Your task to perform on an android device: turn on showing notifications on the lock screen Image 0: 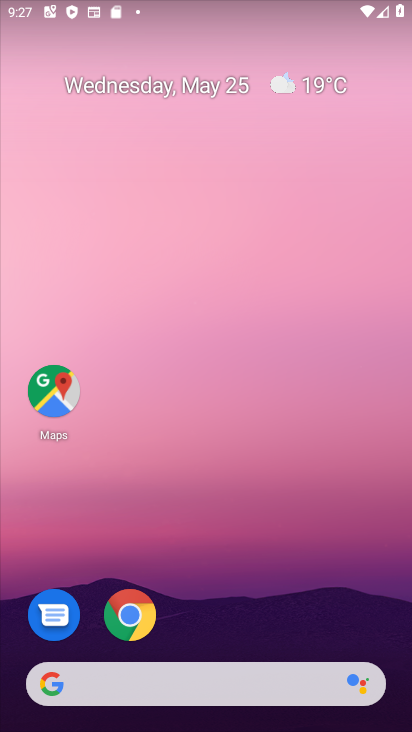
Step 0: drag from (265, 692) to (312, 83)
Your task to perform on an android device: turn on showing notifications on the lock screen Image 1: 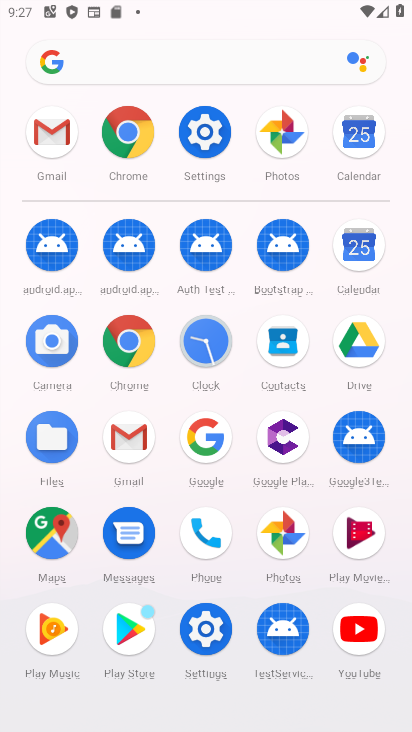
Step 1: click (199, 148)
Your task to perform on an android device: turn on showing notifications on the lock screen Image 2: 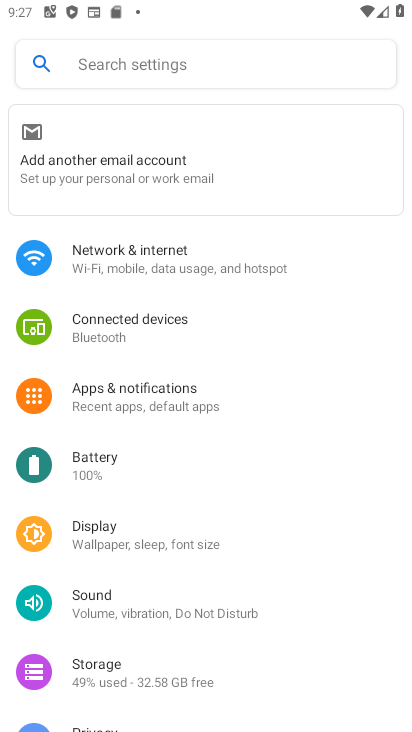
Step 2: click (144, 60)
Your task to perform on an android device: turn on showing notifications on the lock screen Image 3: 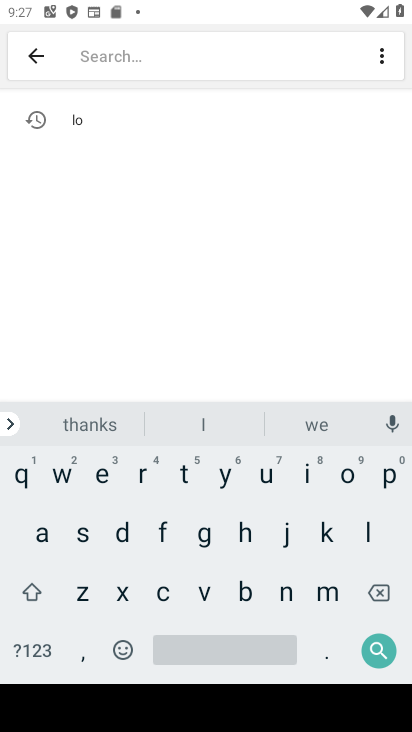
Step 3: click (280, 593)
Your task to perform on an android device: turn on showing notifications on the lock screen Image 4: 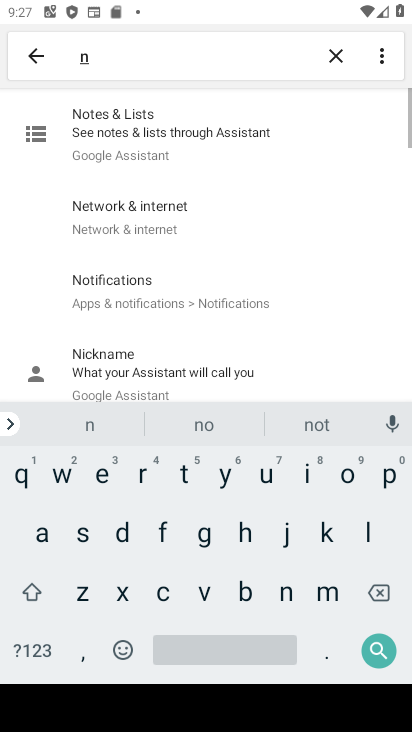
Step 4: click (342, 476)
Your task to perform on an android device: turn on showing notifications on the lock screen Image 5: 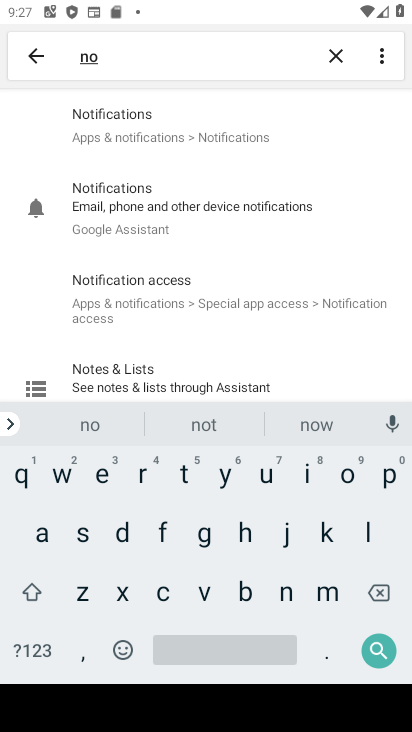
Step 5: click (158, 139)
Your task to perform on an android device: turn on showing notifications on the lock screen Image 6: 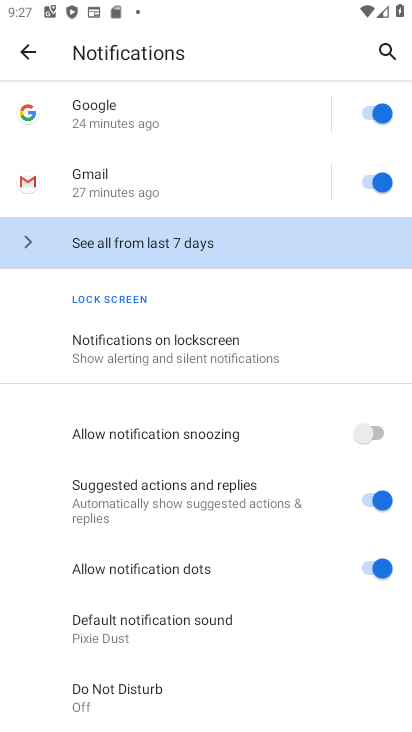
Step 6: click (172, 347)
Your task to perform on an android device: turn on showing notifications on the lock screen Image 7: 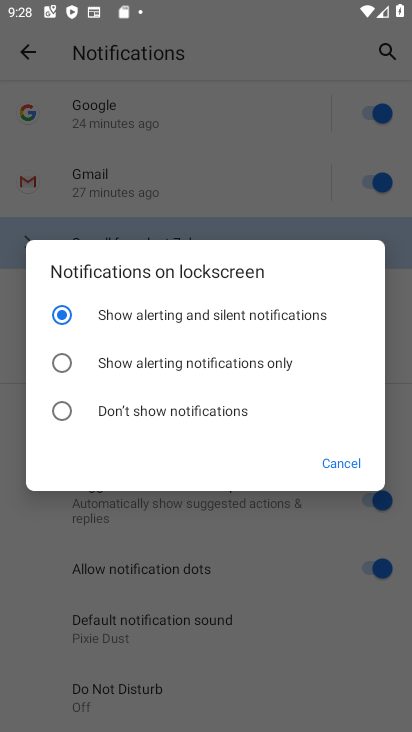
Step 7: task complete